Your task to perform on an android device: Search for a new lawnmower on home depot Image 0: 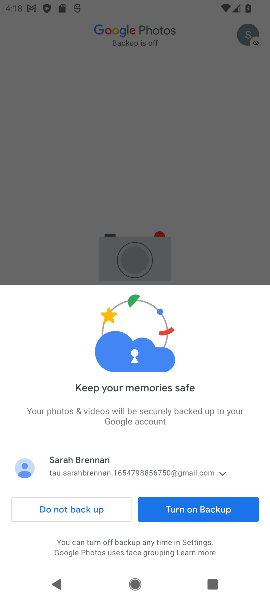
Step 0: press home button
Your task to perform on an android device: Search for a new lawnmower on home depot Image 1: 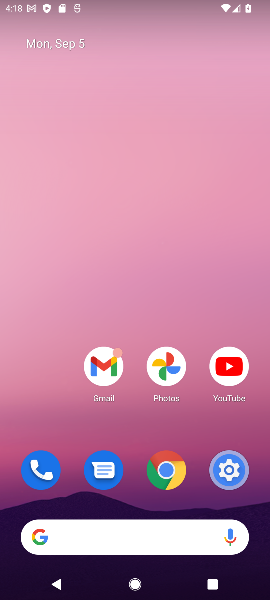
Step 1: click (148, 536)
Your task to perform on an android device: Search for a new lawnmower on home depot Image 2: 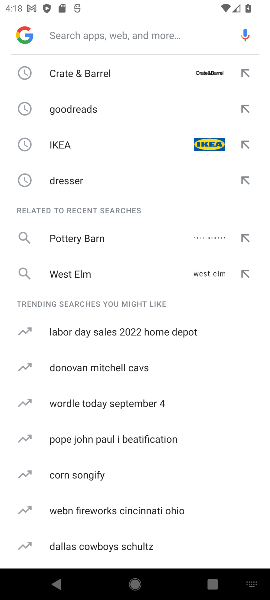
Step 2: type "home depot"
Your task to perform on an android device: Search for a new lawnmower on home depot Image 3: 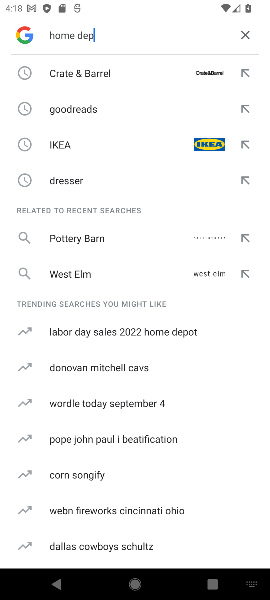
Step 3: type ""
Your task to perform on an android device: Search for a new lawnmower on home depot Image 4: 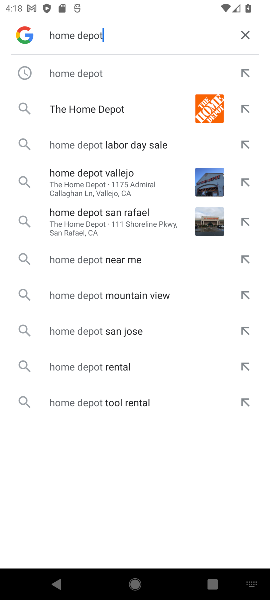
Step 4: click (111, 77)
Your task to perform on an android device: Search for a new lawnmower on home depot Image 5: 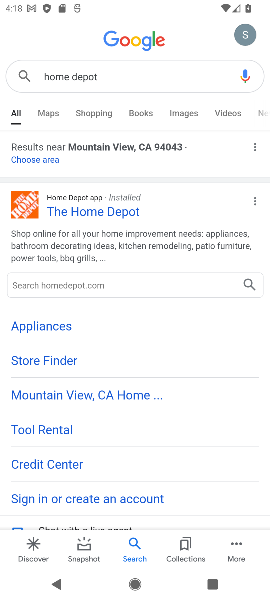
Step 5: drag from (95, 455) to (159, 243)
Your task to perform on an android device: Search for a new lawnmower on home depot Image 6: 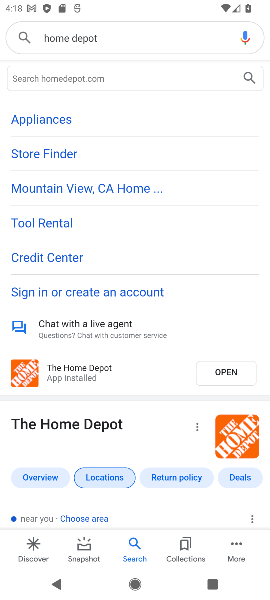
Step 6: click (60, 221)
Your task to perform on an android device: Search for a new lawnmower on home depot Image 7: 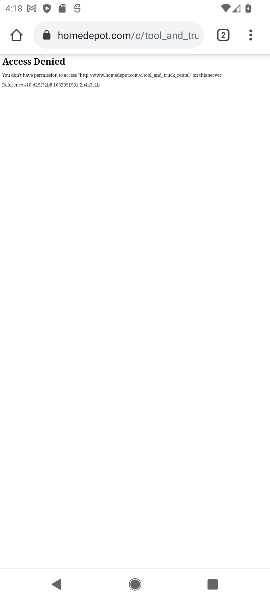
Step 7: drag from (138, 201) to (115, 365)
Your task to perform on an android device: Search for a new lawnmower on home depot Image 8: 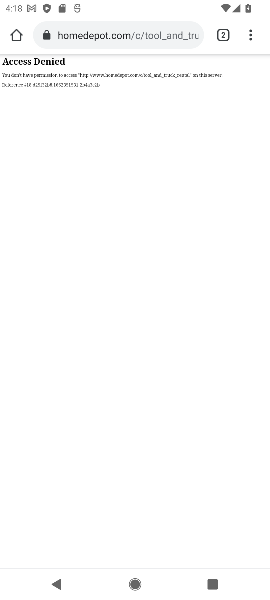
Step 8: press back button
Your task to perform on an android device: Search for a new lawnmower on home depot Image 9: 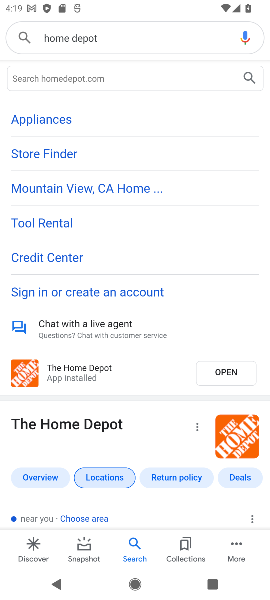
Step 9: click (58, 118)
Your task to perform on an android device: Search for a new lawnmower on home depot Image 10: 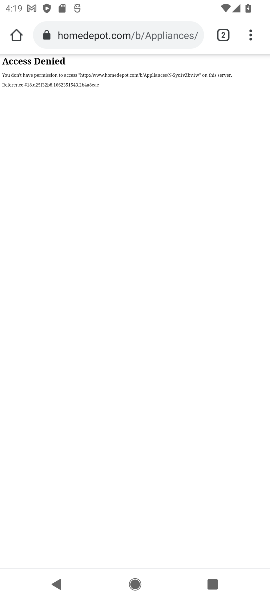
Step 10: press back button
Your task to perform on an android device: Search for a new lawnmower on home depot Image 11: 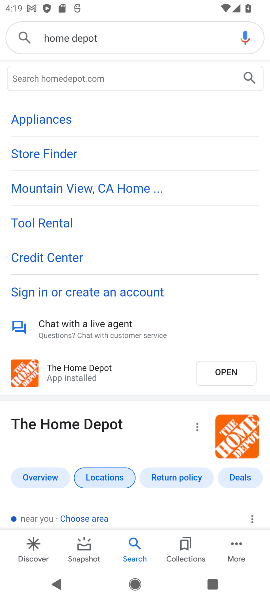
Step 11: drag from (157, 406) to (167, 131)
Your task to perform on an android device: Search for a new lawnmower on home depot Image 12: 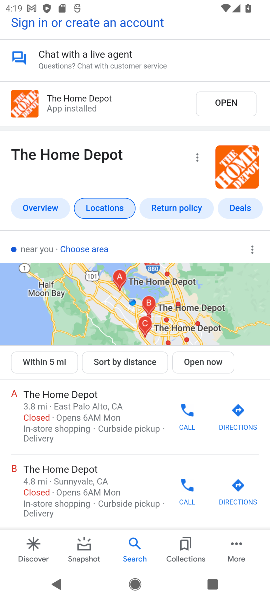
Step 12: drag from (128, 368) to (129, 0)
Your task to perform on an android device: Search for a new lawnmower on home depot Image 13: 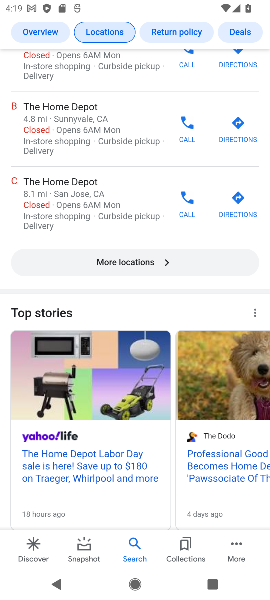
Step 13: drag from (119, 309) to (181, 69)
Your task to perform on an android device: Search for a new lawnmower on home depot Image 14: 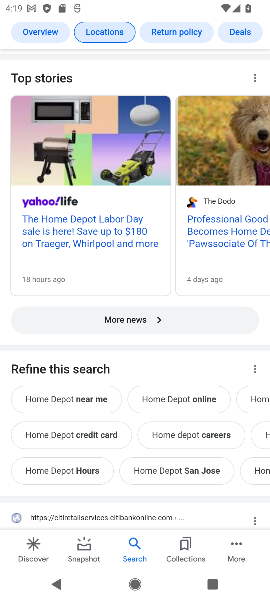
Step 14: drag from (115, 347) to (200, 63)
Your task to perform on an android device: Search for a new lawnmower on home depot Image 15: 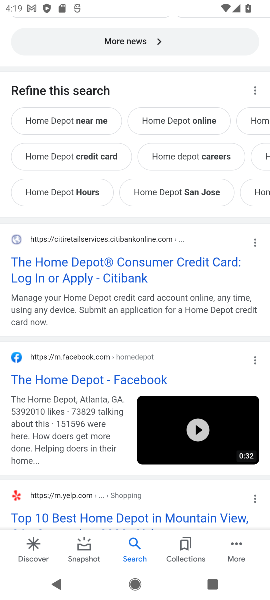
Step 15: click (165, 344)
Your task to perform on an android device: Search for a new lawnmower on home depot Image 16: 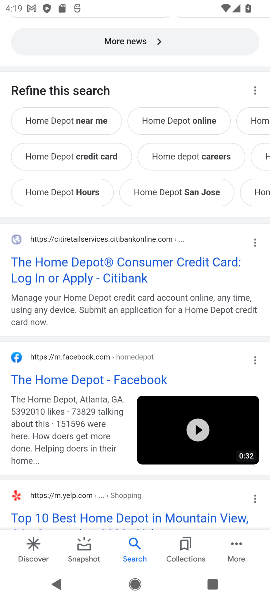
Step 16: task complete